Your task to perform on an android device: change text size in settings app Image 0: 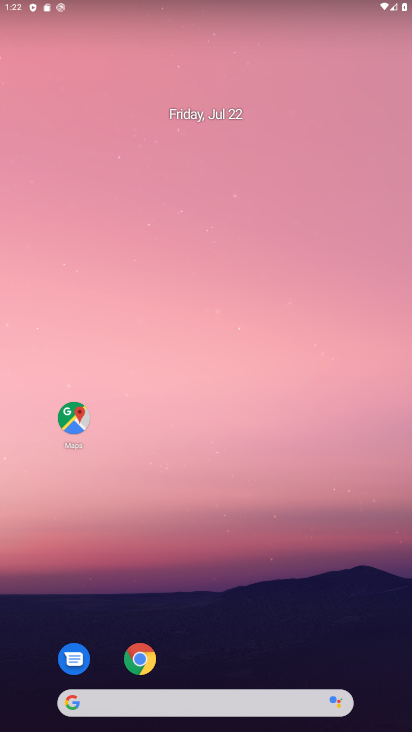
Step 0: drag from (301, 631) to (290, 14)
Your task to perform on an android device: change text size in settings app Image 1: 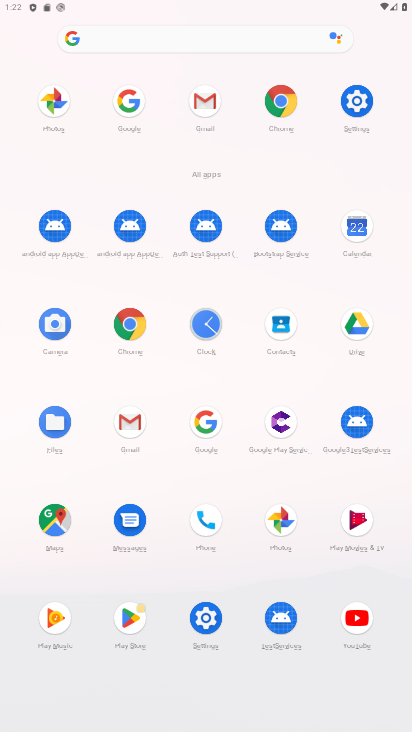
Step 1: click (351, 100)
Your task to perform on an android device: change text size in settings app Image 2: 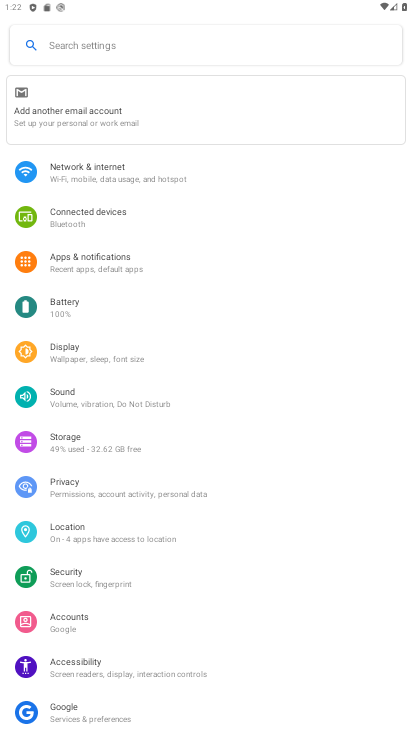
Step 2: click (138, 343)
Your task to perform on an android device: change text size in settings app Image 3: 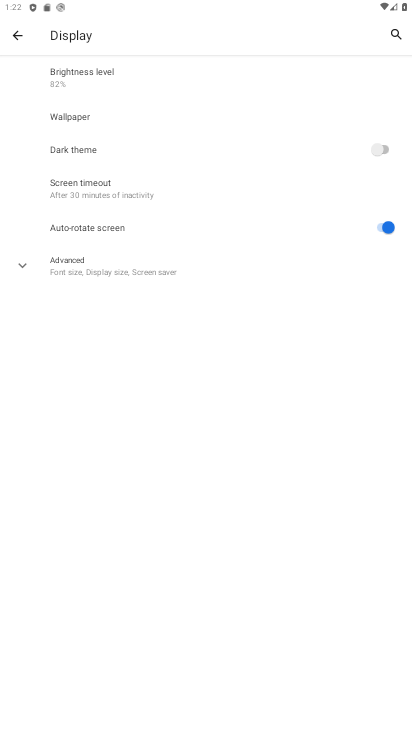
Step 3: click (155, 271)
Your task to perform on an android device: change text size in settings app Image 4: 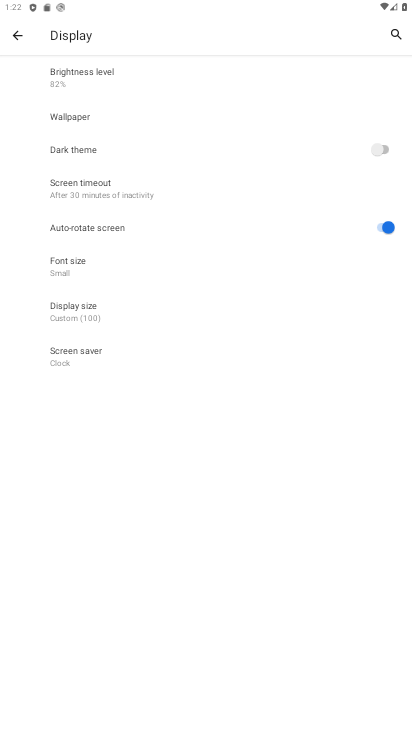
Step 4: click (140, 260)
Your task to perform on an android device: change text size in settings app Image 5: 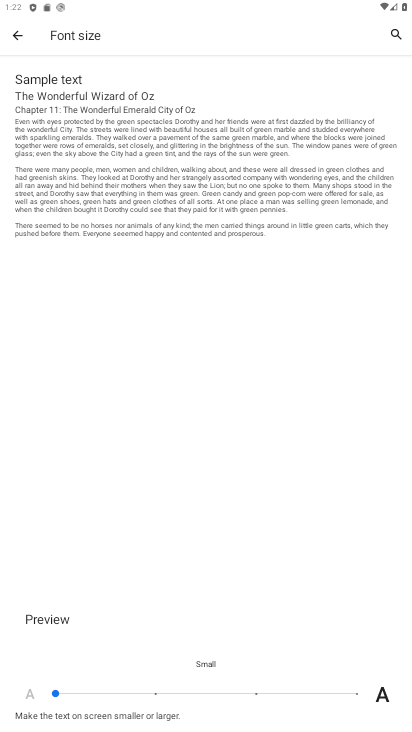
Step 5: click (355, 696)
Your task to perform on an android device: change text size in settings app Image 6: 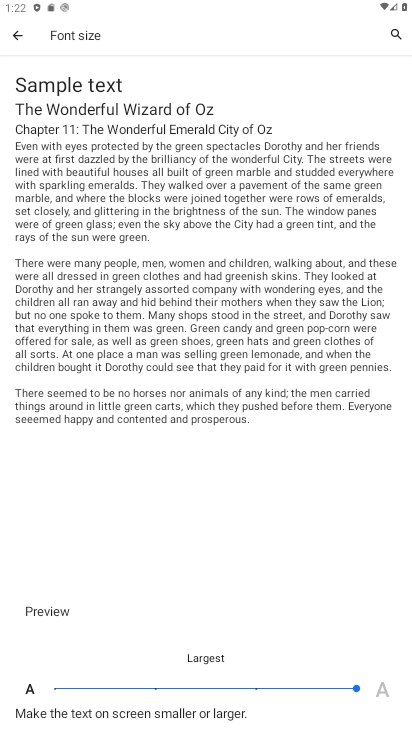
Step 6: task complete